Your task to perform on an android device: Play the latest video from the BBC Image 0: 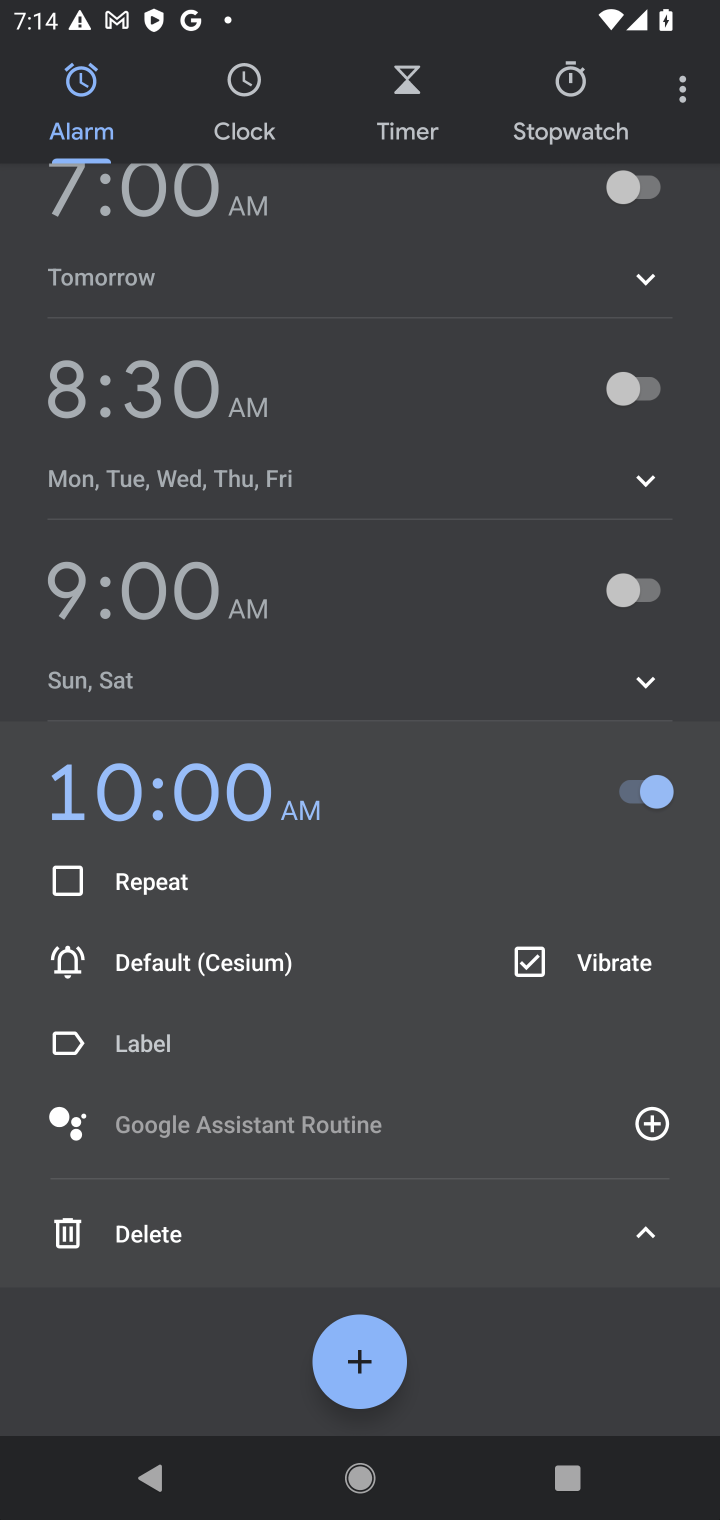
Step 0: press home button
Your task to perform on an android device: Play the latest video from the BBC Image 1: 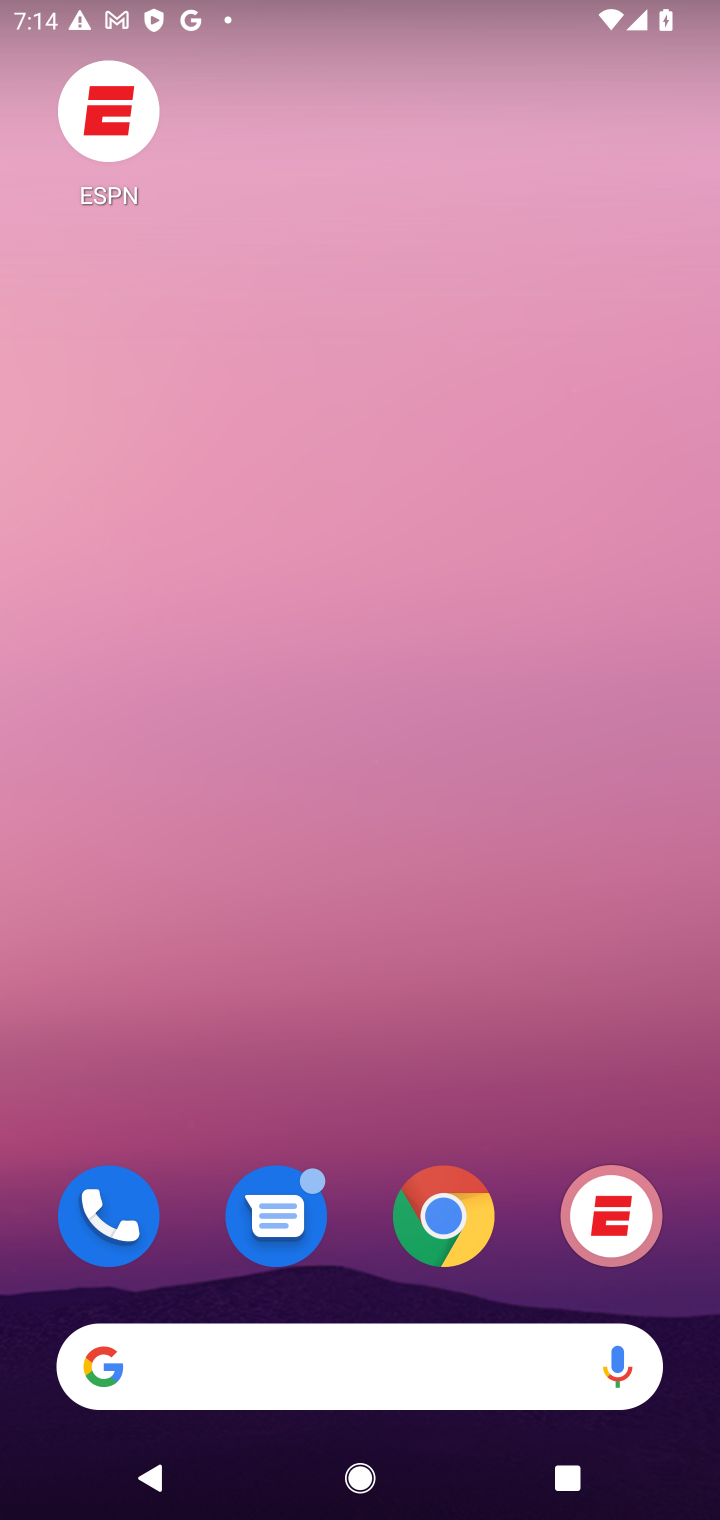
Step 1: drag from (372, 1346) to (203, 138)
Your task to perform on an android device: Play the latest video from the BBC Image 2: 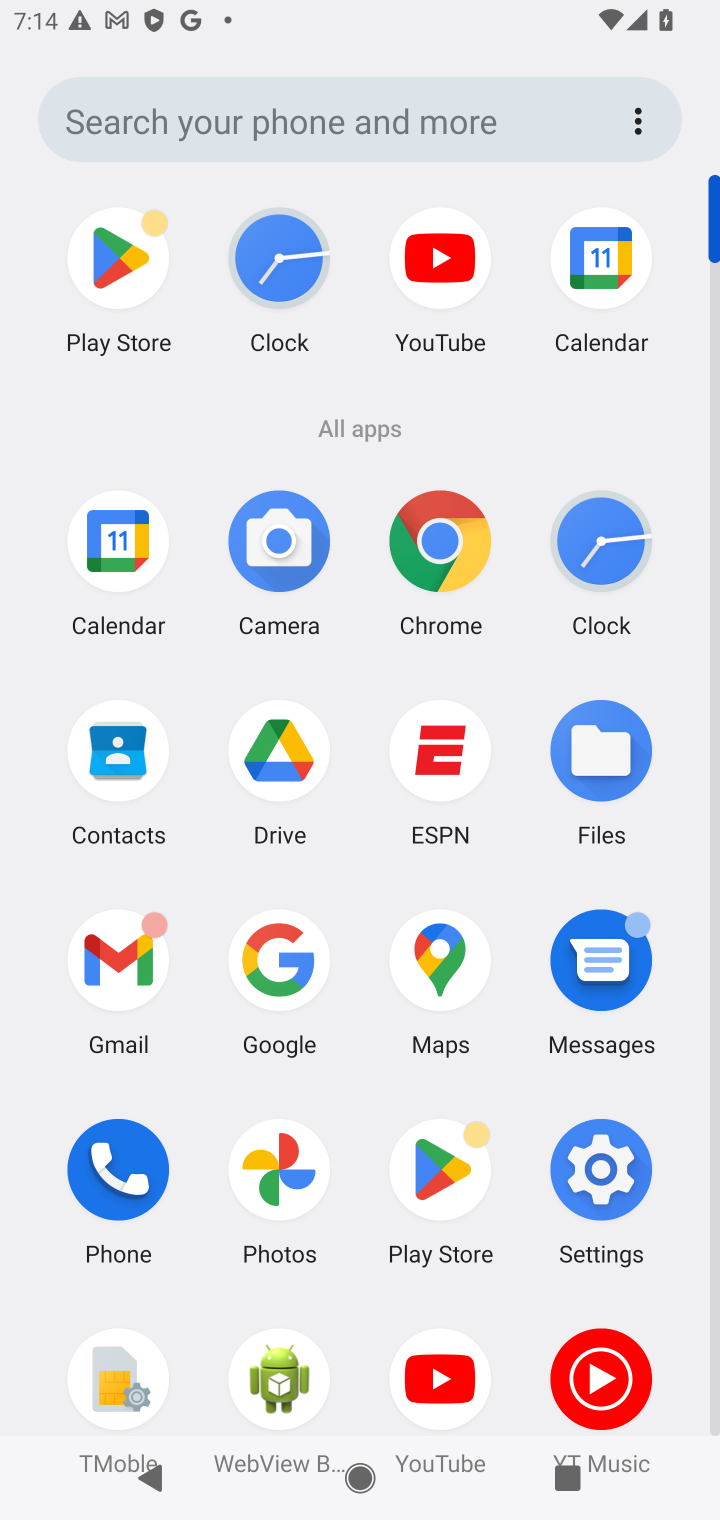
Step 2: click (419, 1380)
Your task to perform on an android device: Play the latest video from the BBC Image 3: 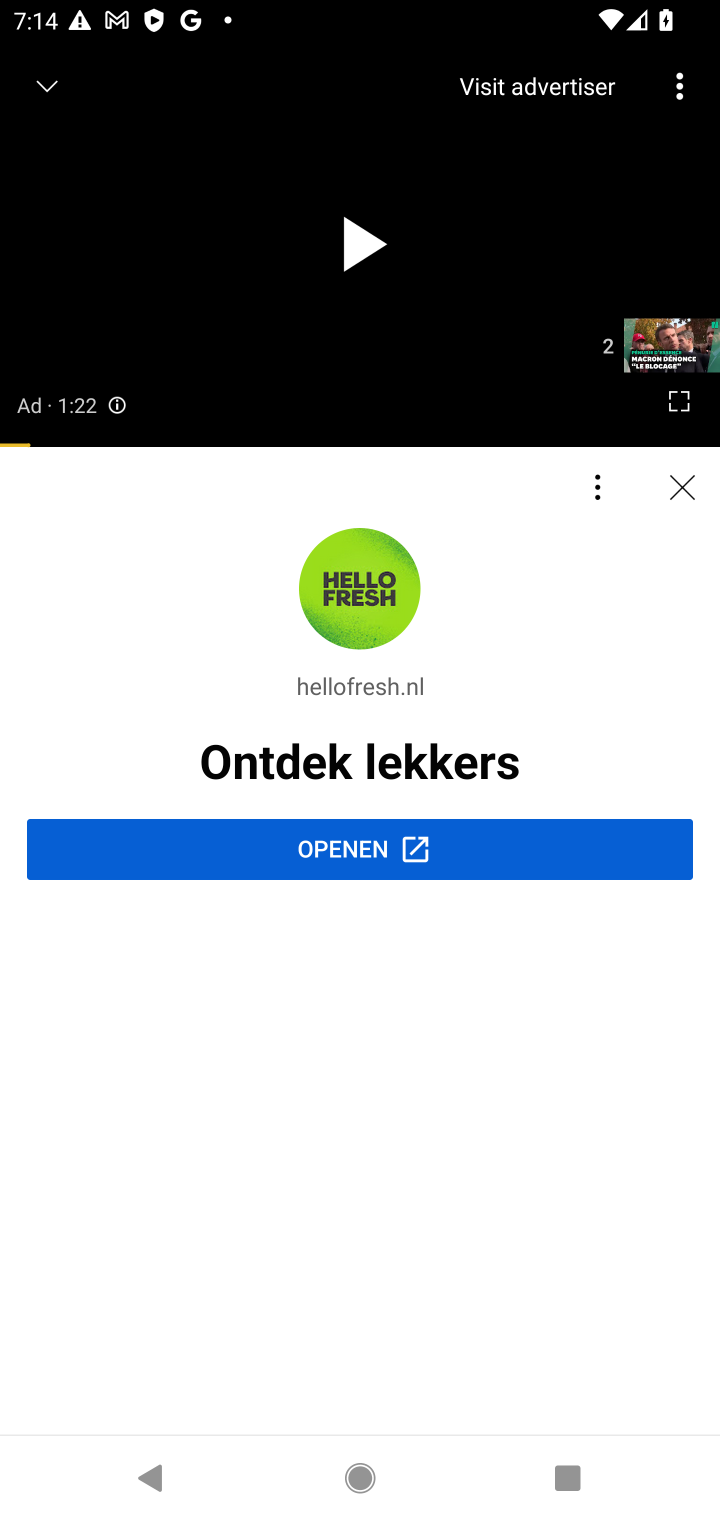
Step 3: click (49, 84)
Your task to perform on an android device: Play the latest video from the BBC Image 4: 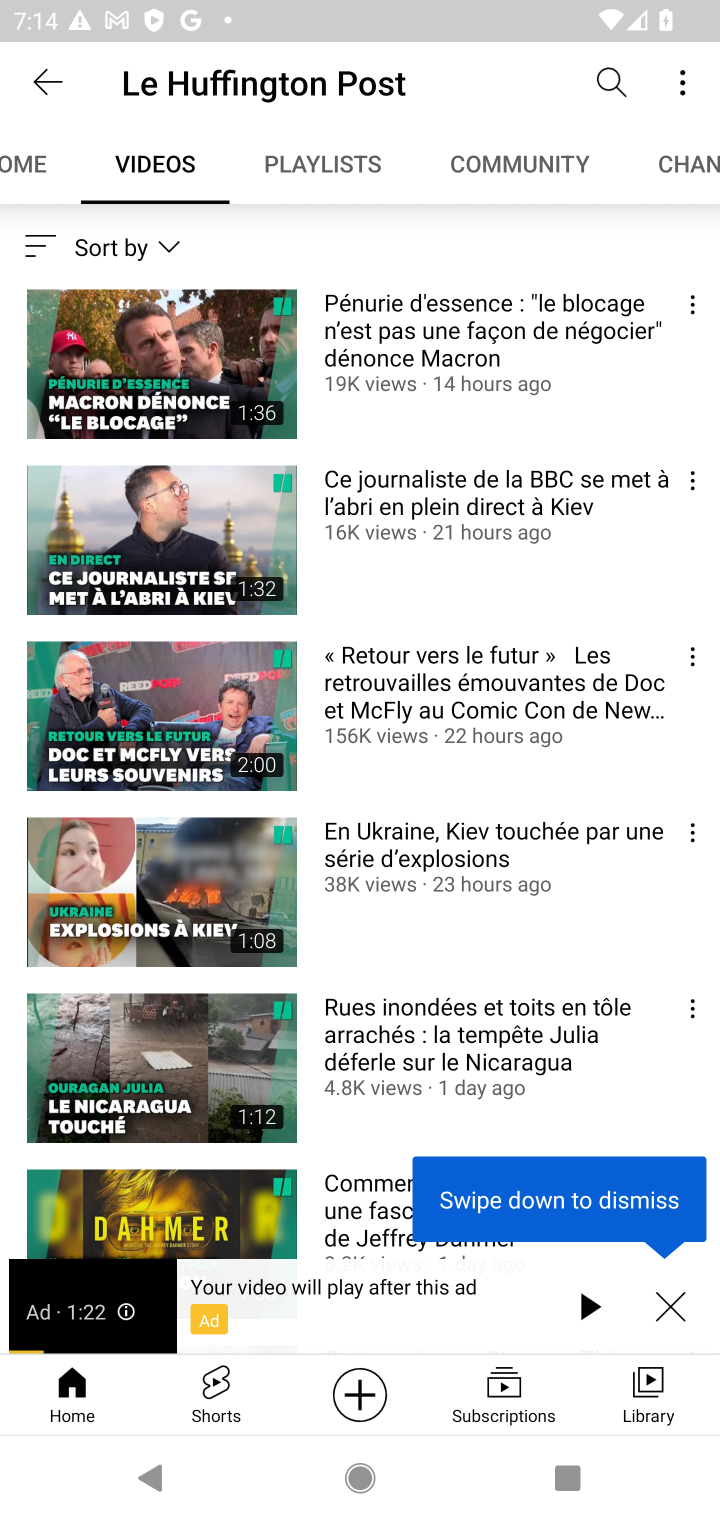
Step 4: click (49, 93)
Your task to perform on an android device: Play the latest video from the BBC Image 5: 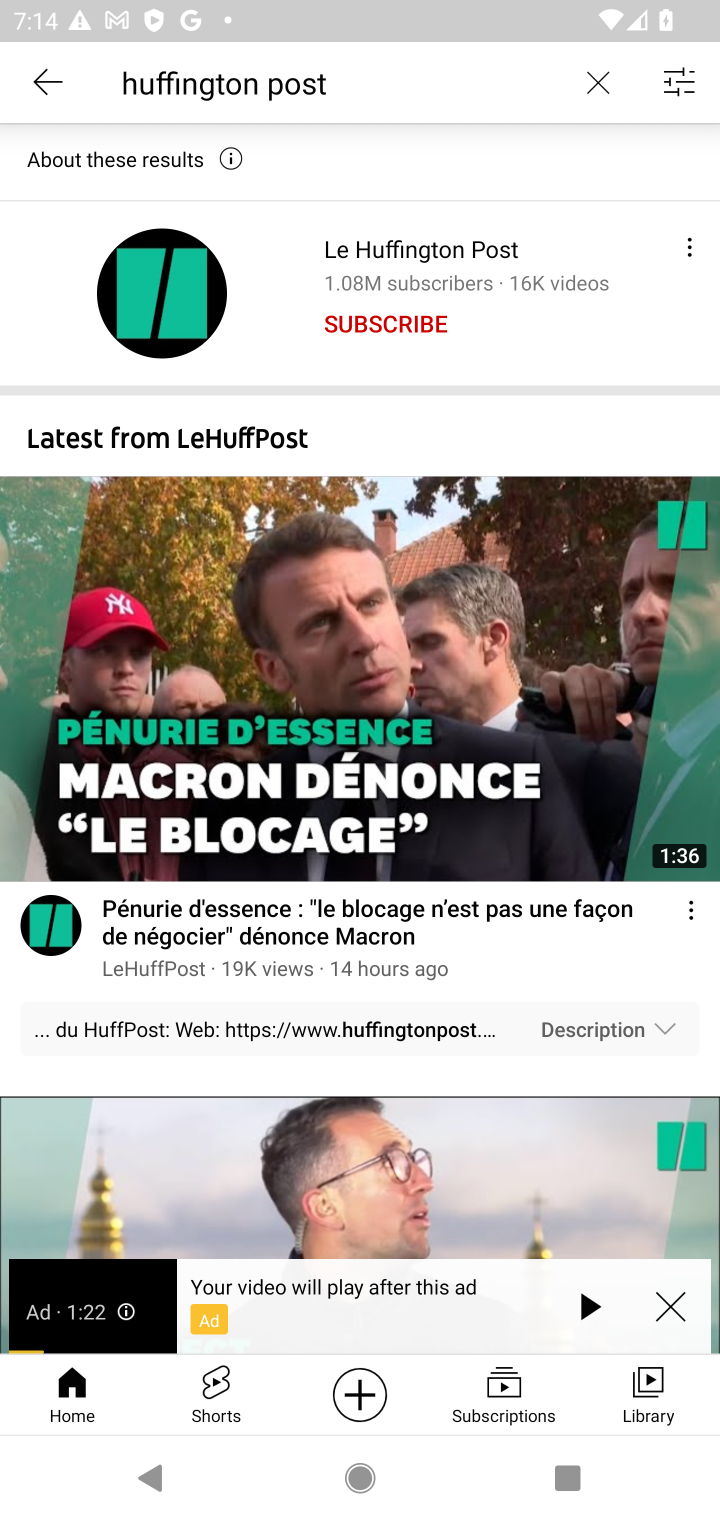
Step 5: click (597, 87)
Your task to perform on an android device: Play the latest video from the BBC Image 6: 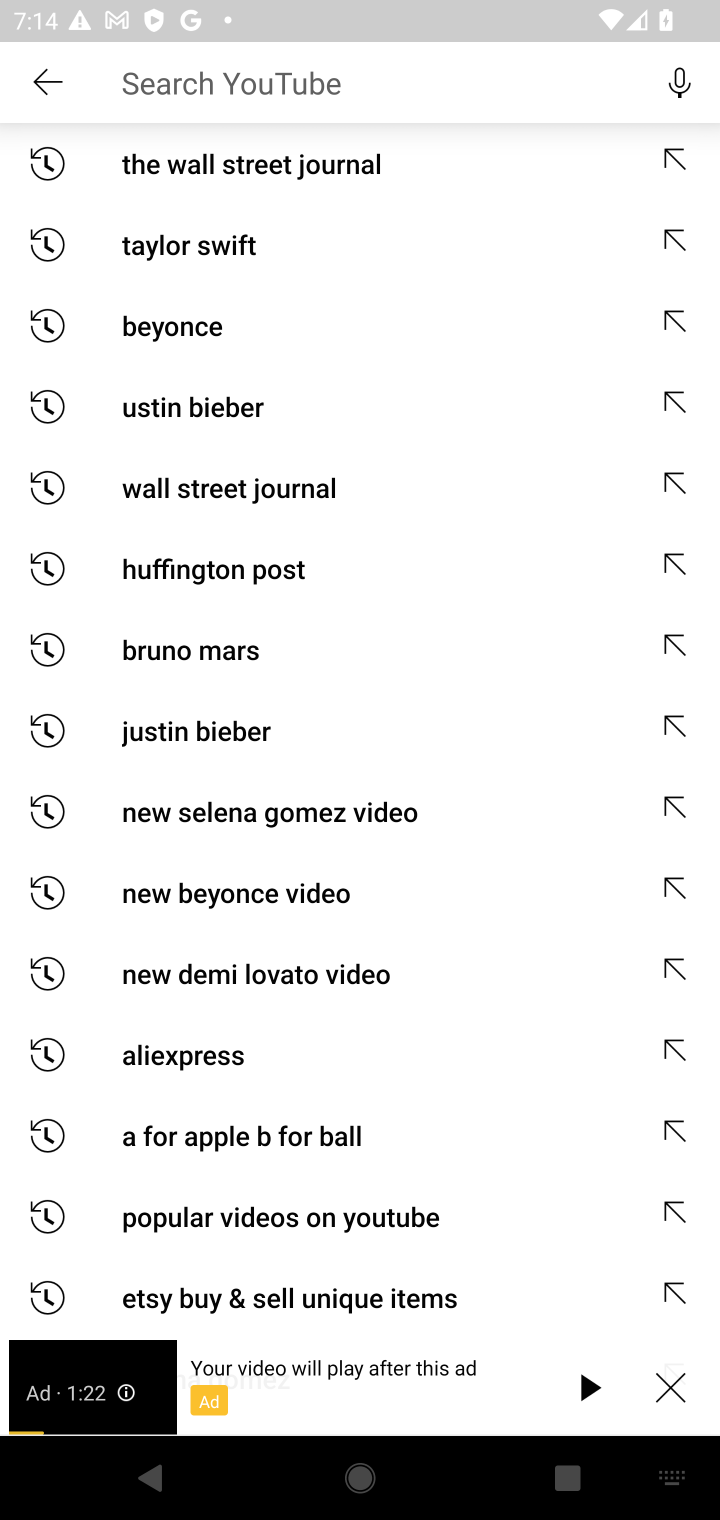
Step 6: type "bbc"
Your task to perform on an android device: Play the latest video from the BBC Image 7: 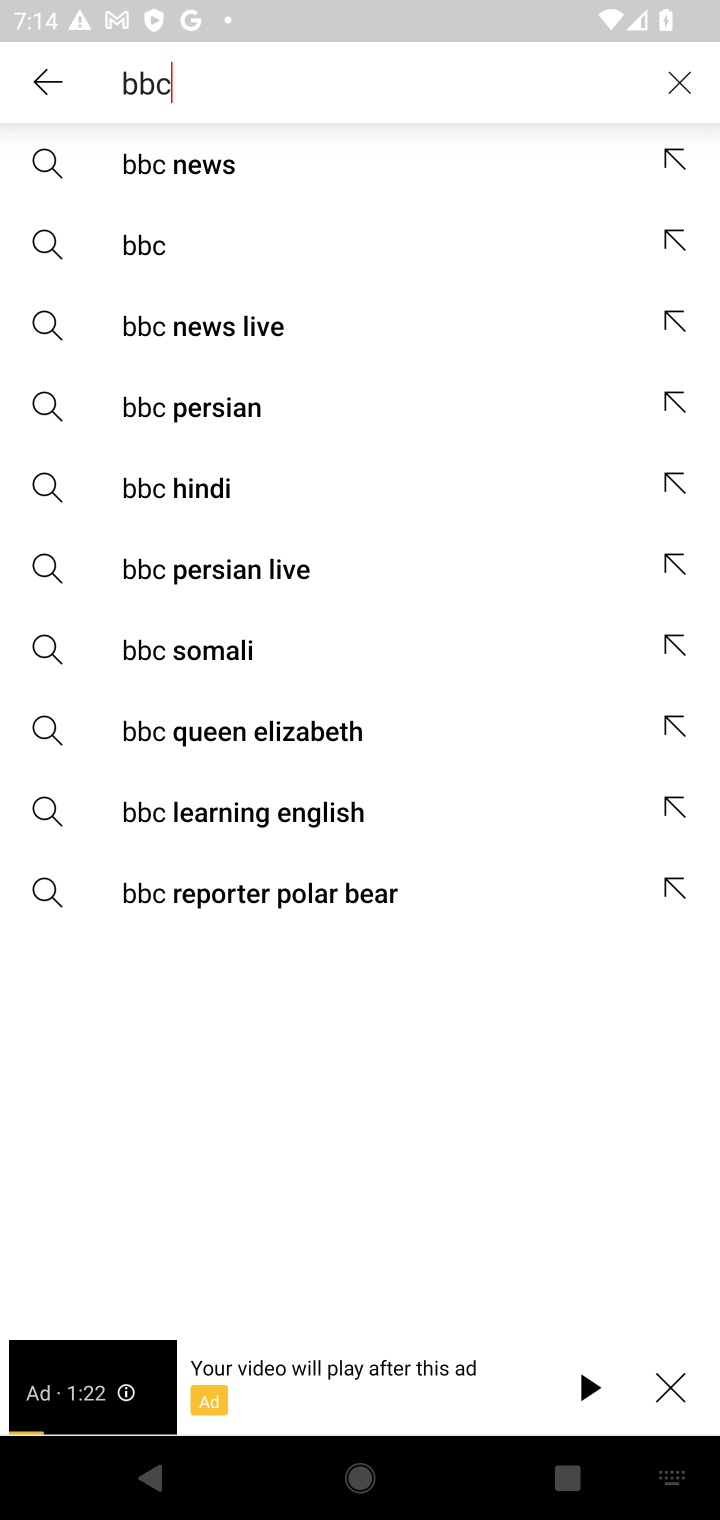
Step 7: press enter
Your task to perform on an android device: Play the latest video from the BBC Image 8: 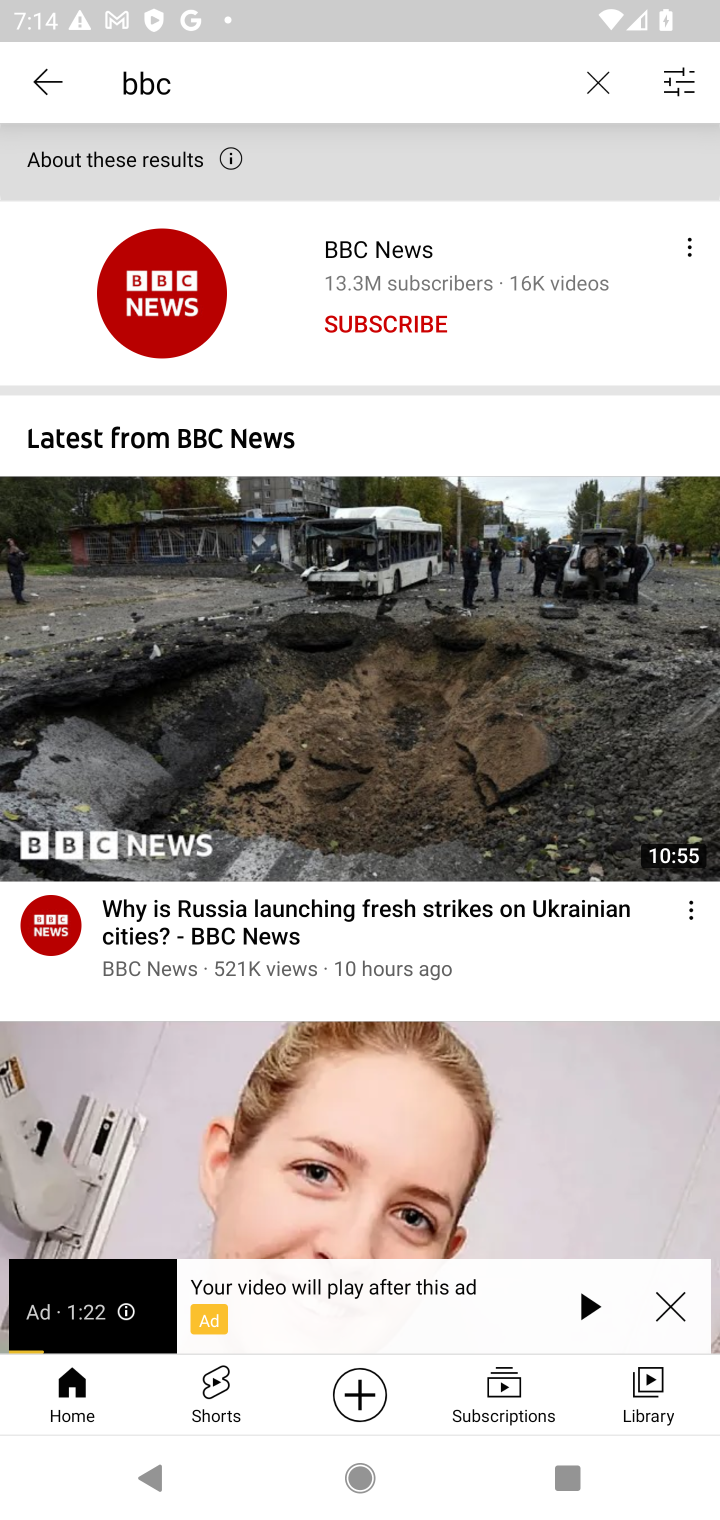
Step 8: click (217, 289)
Your task to perform on an android device: Play the latest video from the BBC Image 9: 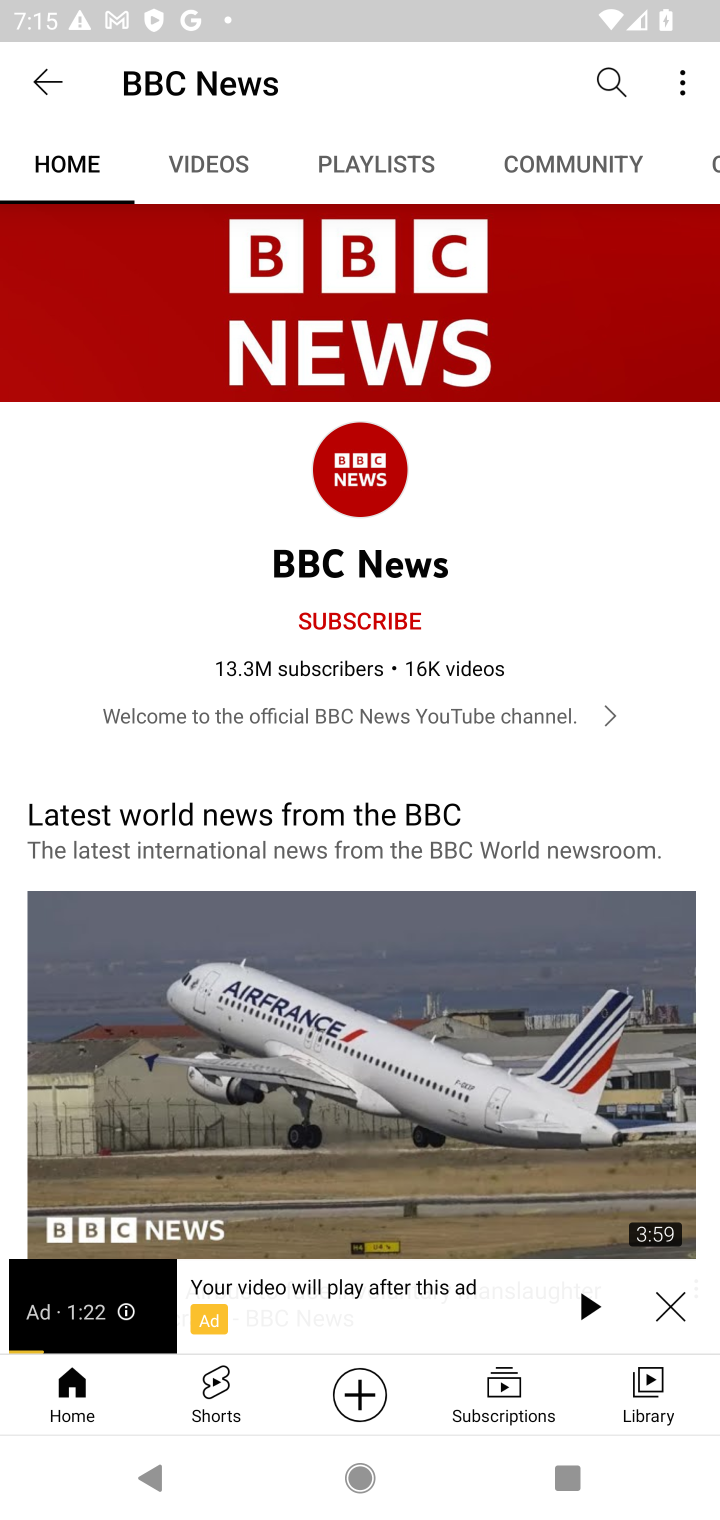
Step 9: click (205, 163)
Your task to perform on an android device: Play the latest video from the BBC Image 10: 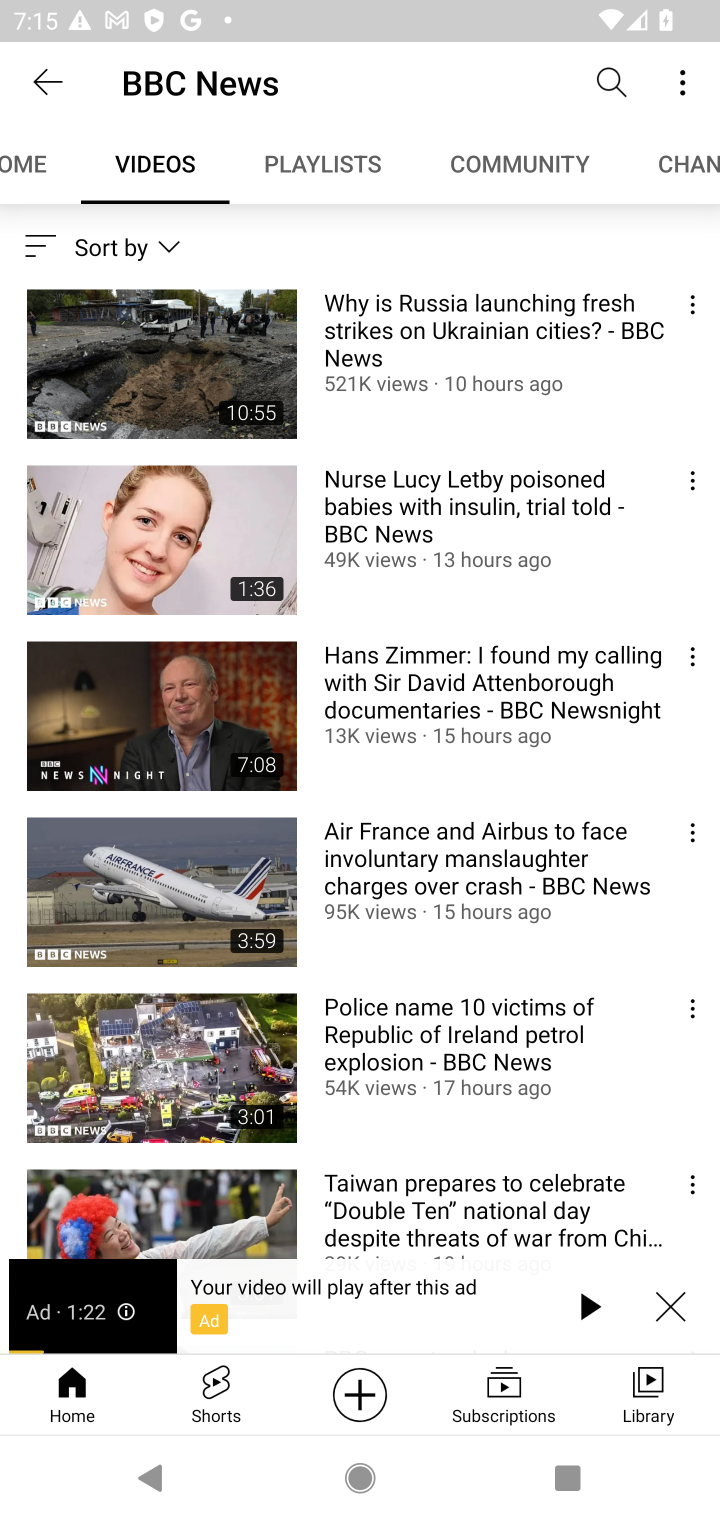
Step 10: click (204, 396)
Your task to perform on an android device: Play the latest video from the BBC Image 11: 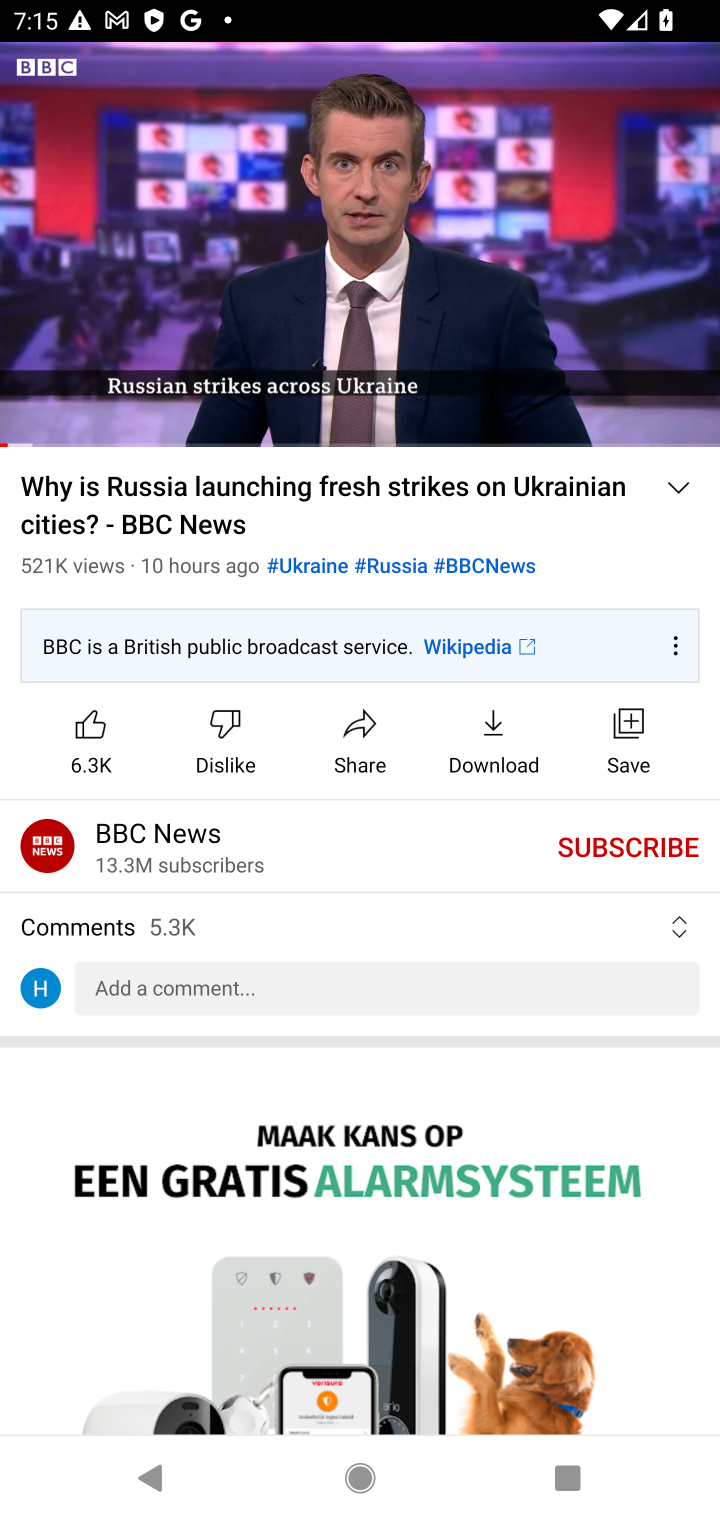
Step 11: task complete